Your task to perform on an android device: What is the recent news? Image 0: 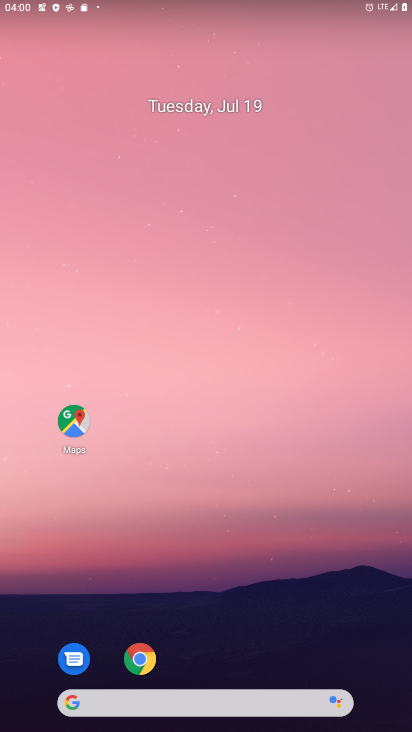
Step 0: drag from (206, 612) to (242, 0)
Your task to perform on an android device: What is the recent news? Image 1: 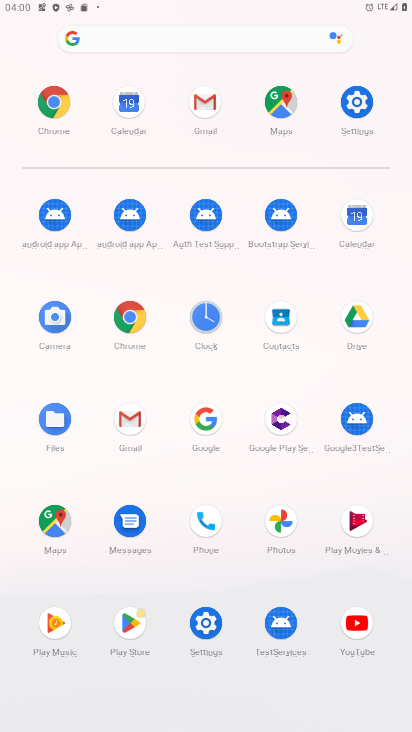
Step 1: click (65, 123)
Your task to perform on an android device: What is the recent news? Image 2: 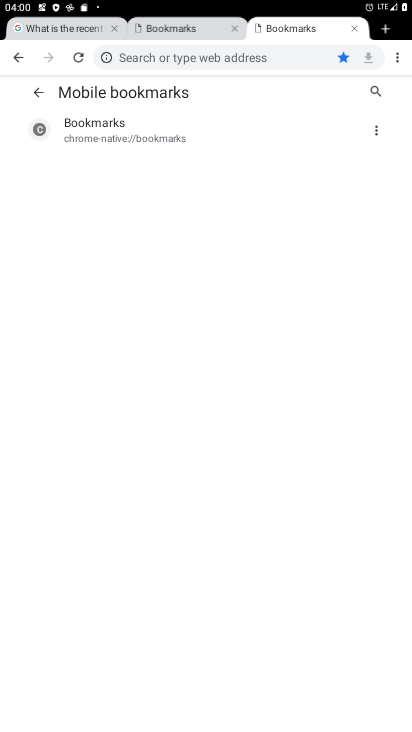
Step 2: click (219, 56)
Your task to perform on an android device: What is the recent news? Image 3: 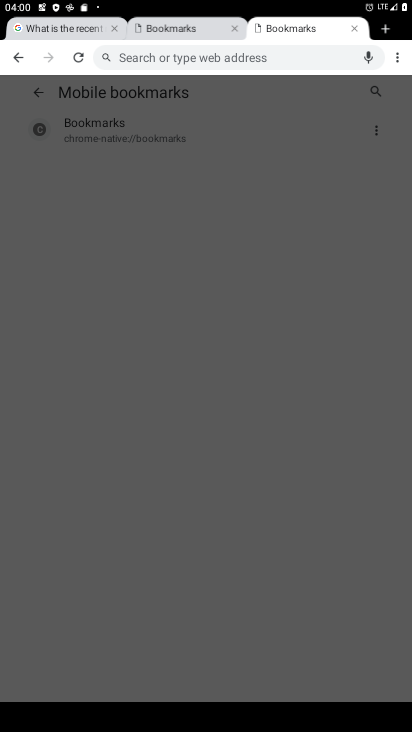
Step 3: type "What is the recent news?"
Your task to perform on an android device: What is the recent news? Image 4: 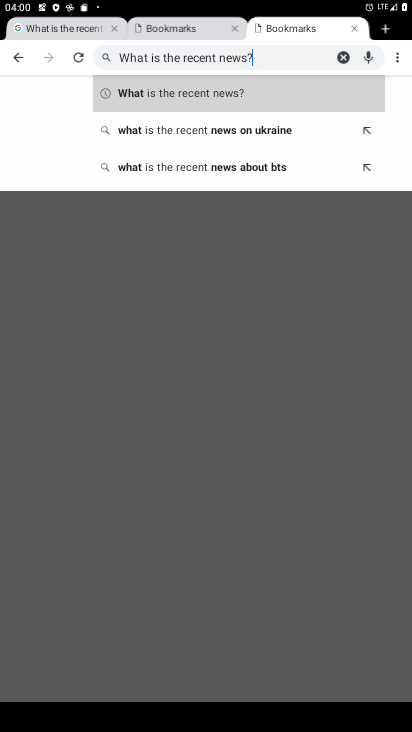
Step 4: type ""
Your task to perform on an android device: What is the recent news? Image 5: 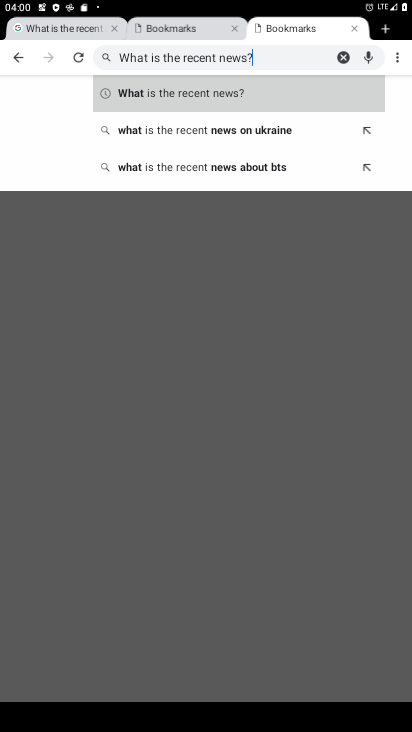
Step 5: click (147, 87)
Your task to perform on an android device: What is the recent news? Image 6: 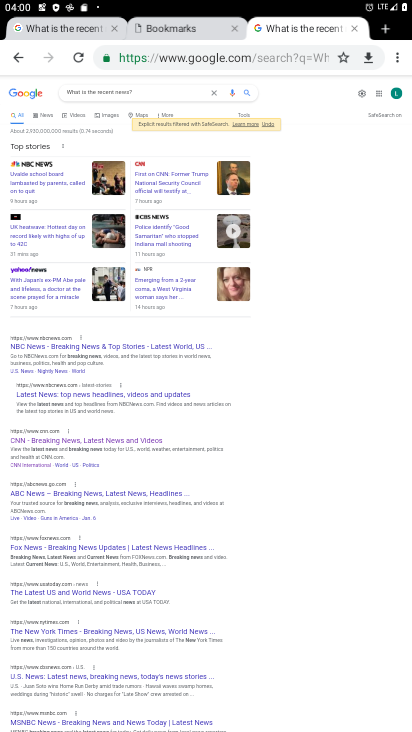
Step 6: task complete